Your task to perform on an android device: add a label to a message in the gmail app Image 0: 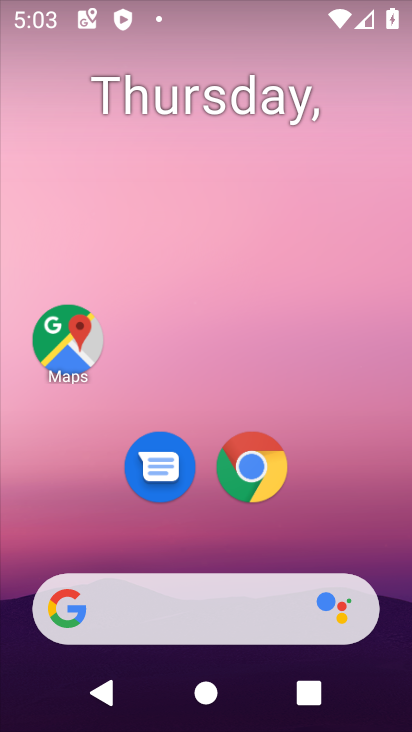
Step 0: drag from (358, 488) to (285, 180)
Your task to perform on an android device: add a label to a message in the gmail app Image 1: 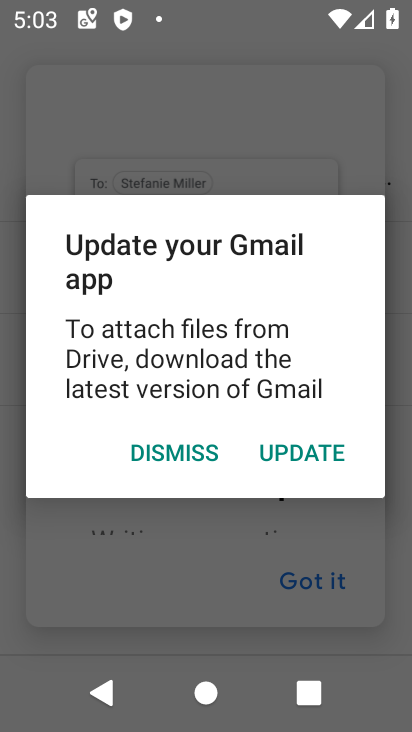
Step 1: press home button
Your task to perform on an android device: add a label to a message in the gmail app Image 2: 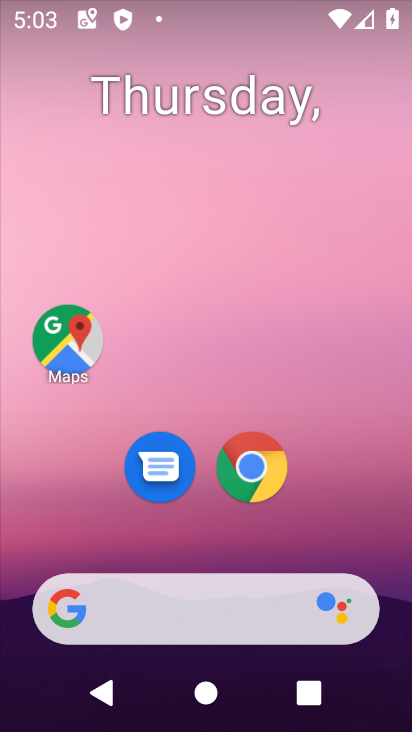
Step 2: drag from (341, 539) to (345, 4)
Your task to perform on an android device: add a label to a message in the gmail app Image 3: 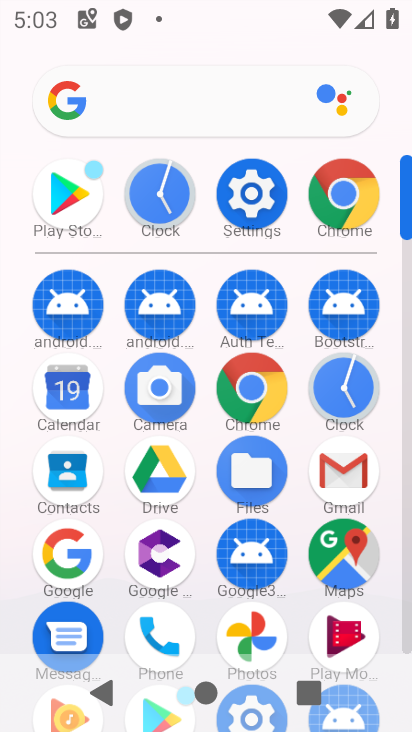
Step 3: click (360, 480)
Your task to perform on an android device: add a label to a message in the gmail app Image 4: 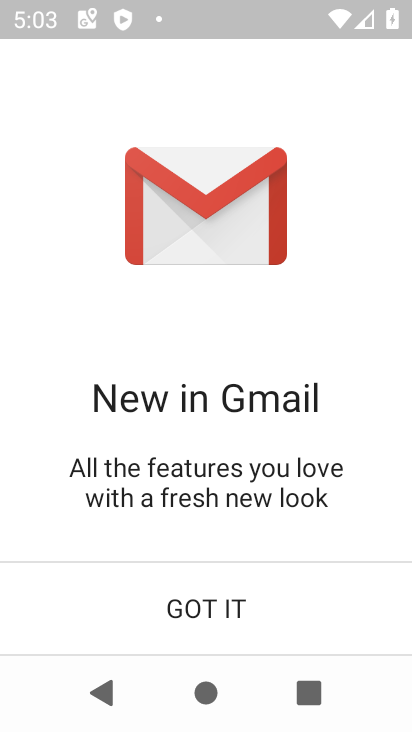
Step 4: click (250, 603)
Your task to perform on an android device: add a label to a message in the gmail app Image 5: 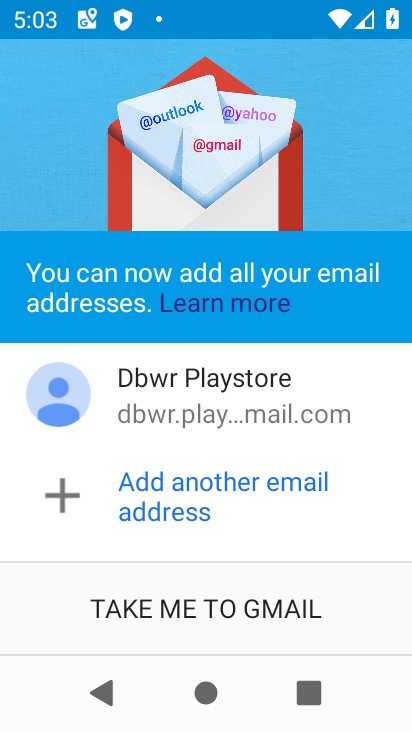
Step 5: click (229, 605)
Your task to perform on an android device: add a label to a message in the gmail app Image 6: 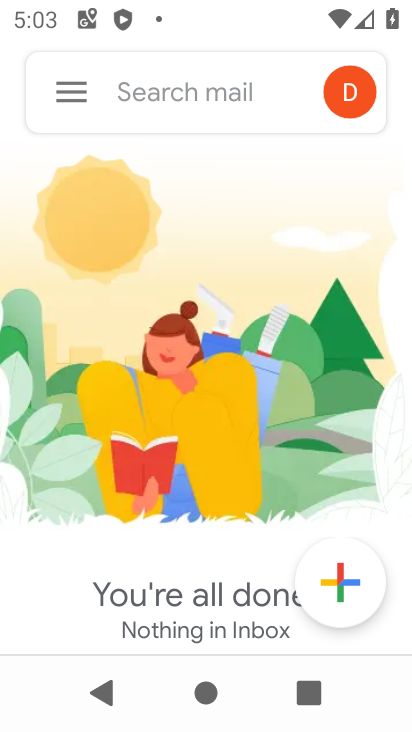
Step 6: task complete